Your task to perform on an android device: Open battery settings Image 0: 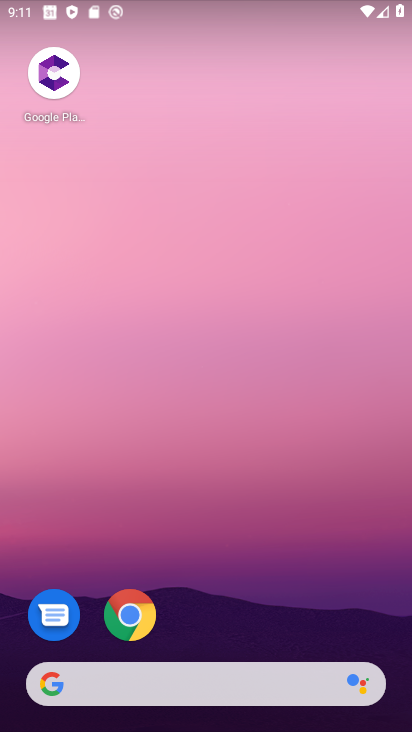
Step 0: drag from (269, 706) to (275, 495)
Your task to perform on an android device: Open battery settings Image 1: 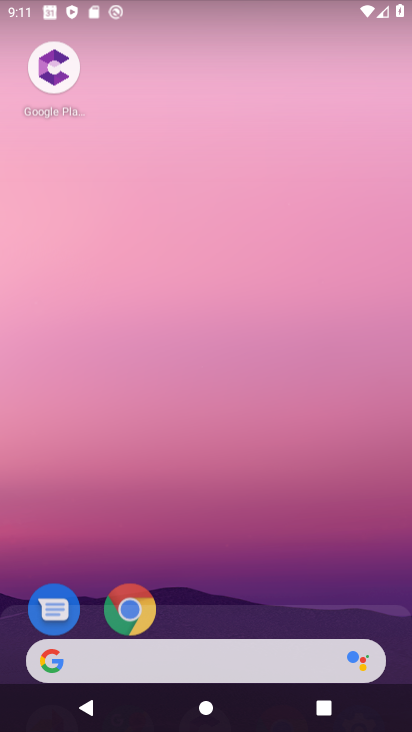
Step 1: click (275, 495)
Your task to perform on an android device: Open battery settings Image 2: 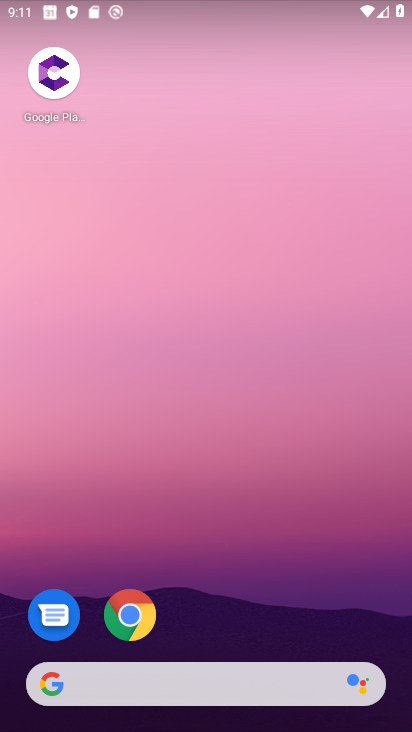
Step 2: drag from (229, 692) to (190, 151)
Your task to perform on an android device: Open battery settings Image 3: 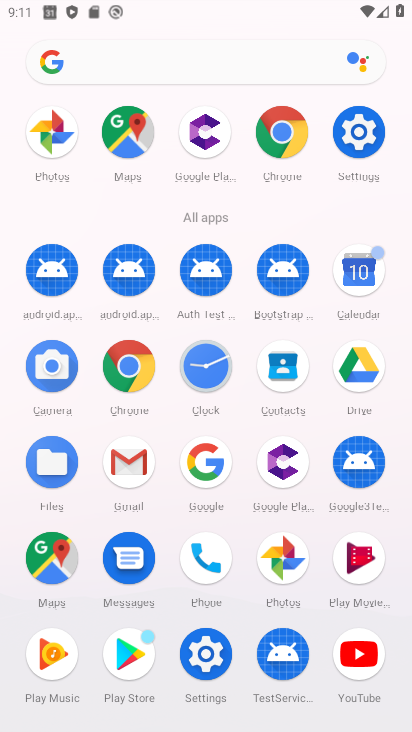
Step 3: click (210, 654)
Your task to perform on an android device: Open battery settings Image 4: 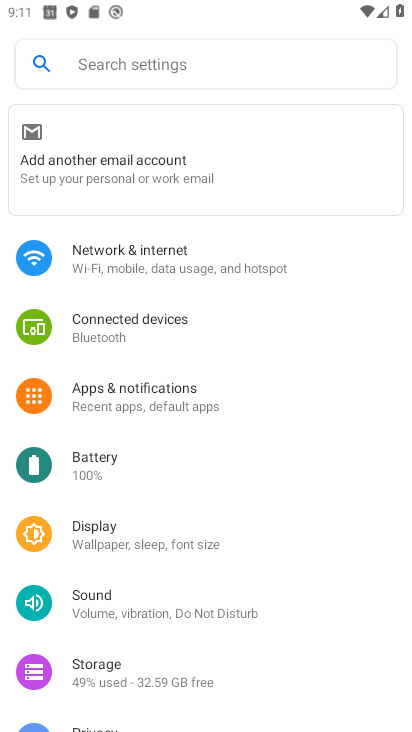
Step 4: click (101, 478)
Your task to perform on an android device: Open battery settings Image 5: 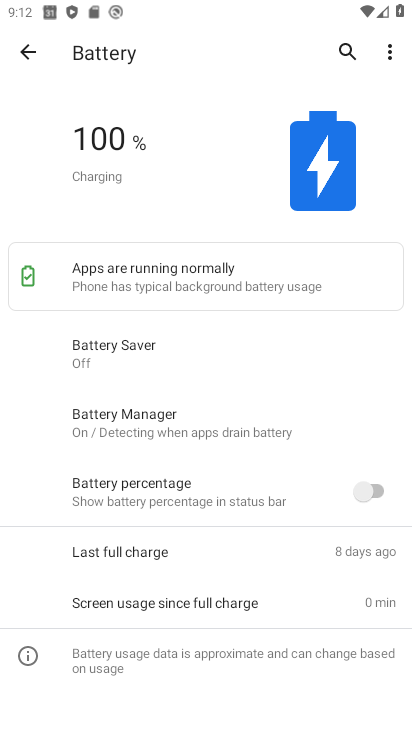
Step 5: task complete